Your task to perform on an android device: toggle wifi Image 0: 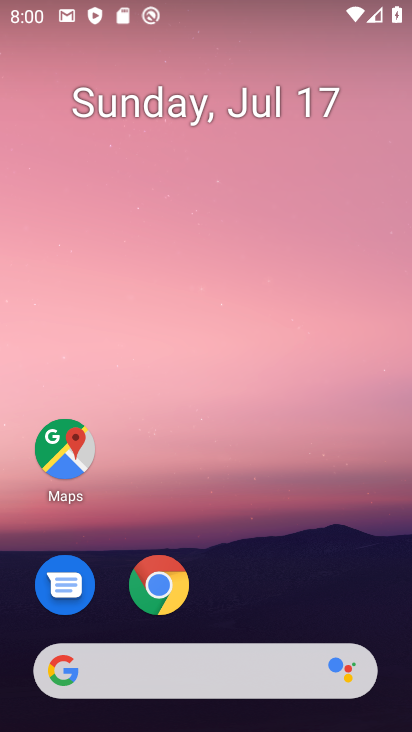
Step 0: press home button
Your task to perform on an android device: toggle wifi Image 1: 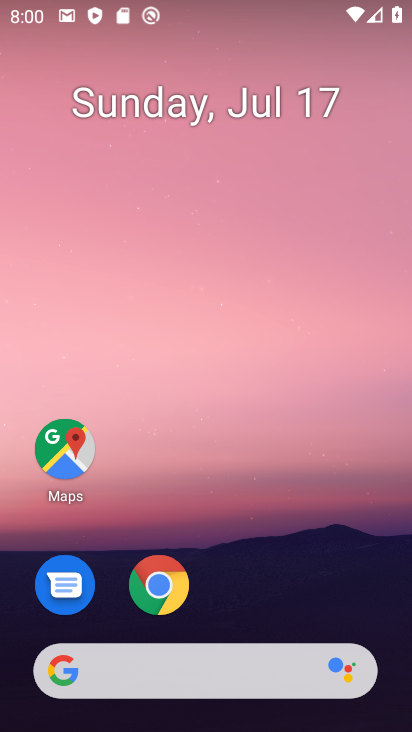
Step 1: drag from (206, 677) to (340, 6)
Your task to perform on an android device: toggle wifi Image 2: 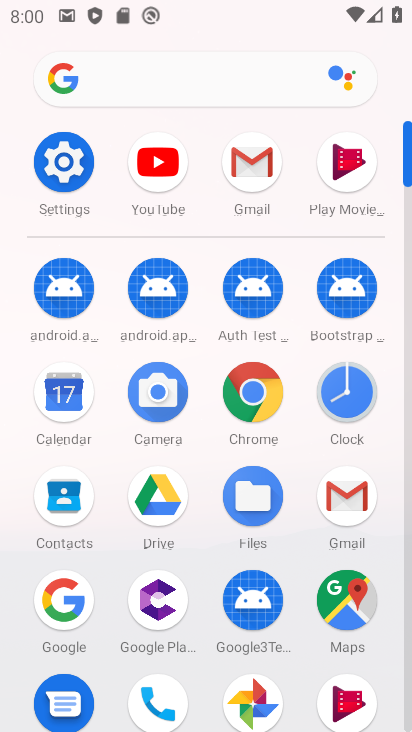
Step 2: click (74, 158)
Your task to perform on an android device: toggle wifi Image 3: 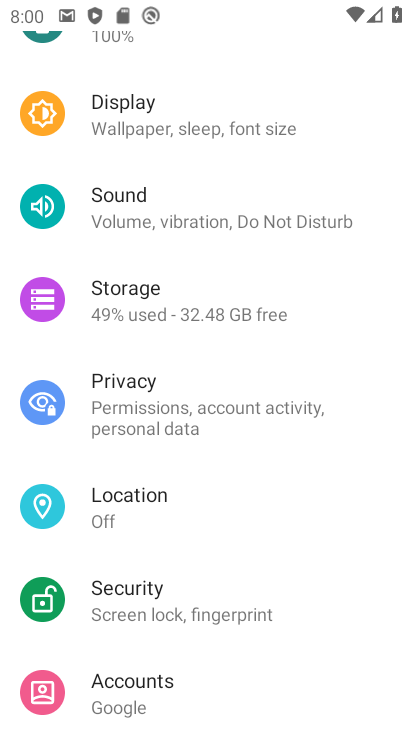
Step 3: drag from (298, 287) to (214, 619)
Your task to perform on an android device: toggle wifi Image 4: 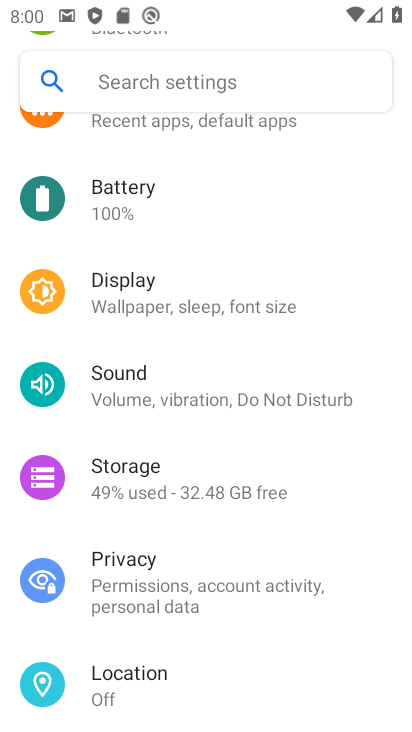
Step 4: drag from (315, 179) to (238, 603)
Your task to perform on an android device: toggle wifi Image 5: 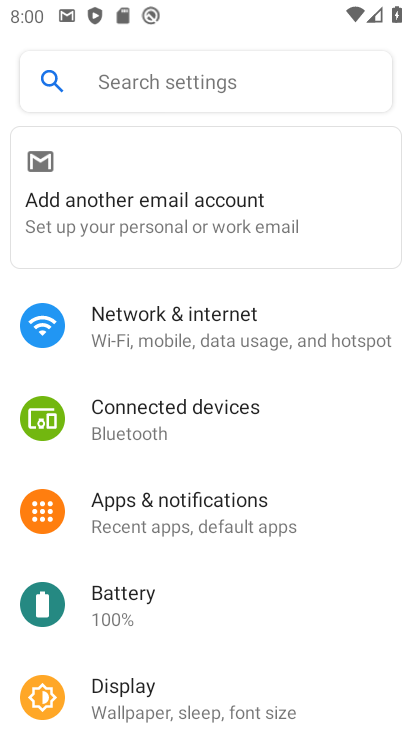
Step 5: click (217, 320)
Your task to perform on an android device: toggle wifi Image 6: 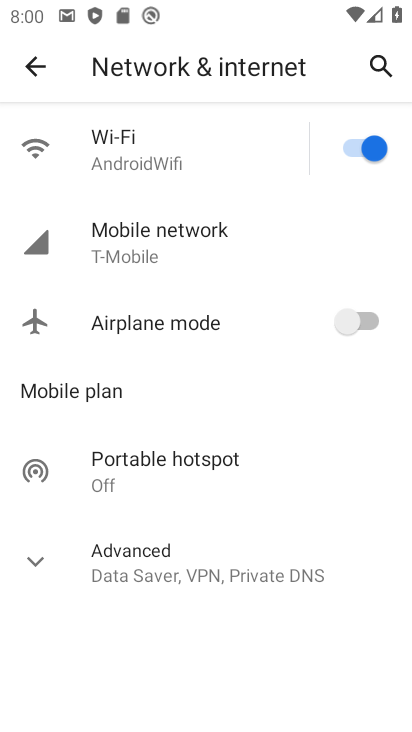
Step 6: click (359, 153)
Your task to perform on an android device: toggle wifi Image 7: 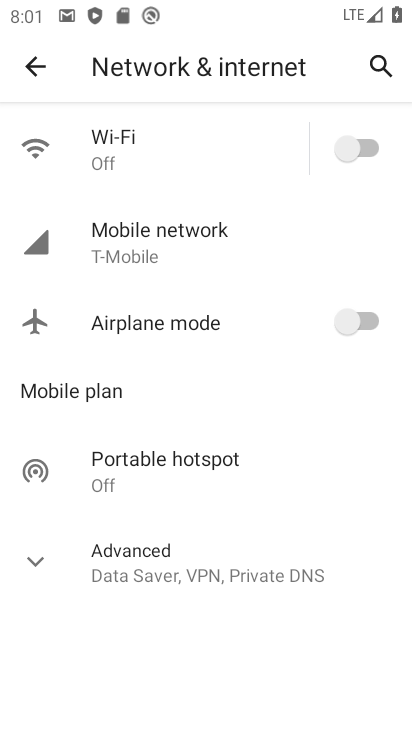
Step 7: task complete